Your task to perform on an android device: see sites visited before in the chrome app Image 0: 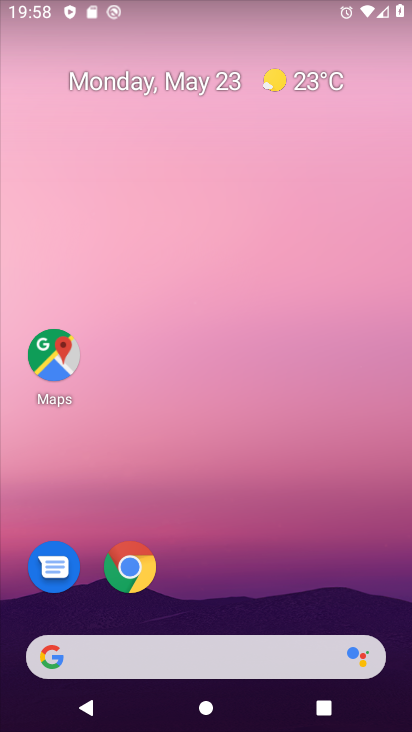
Step 0: drag from (213, 608) to (228, 325)
Your task to perform on an android device: see sites visited before in the chrome app Image 1: 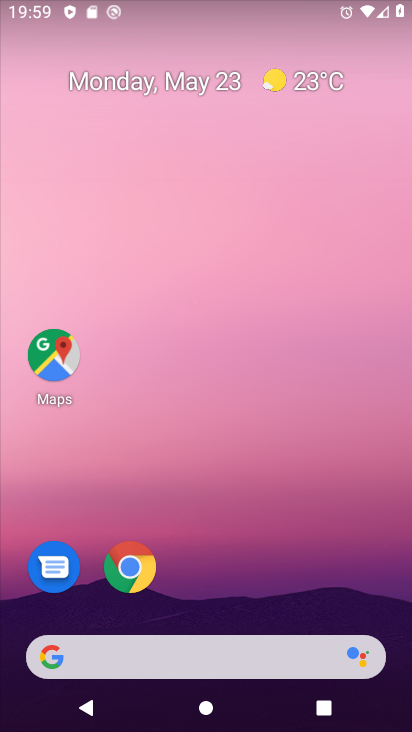
Step 1: drag from (221, 603) to (267, 270)
Your task to perform on an android device: see sites visited before in the chrome app Image 2: 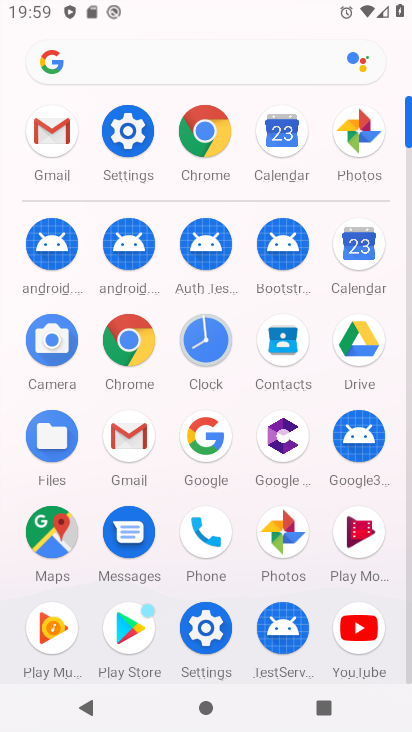
Step 2: click (200, 132)
Your task to perform on an android device: see sites visited before in the chrome app Image 3: 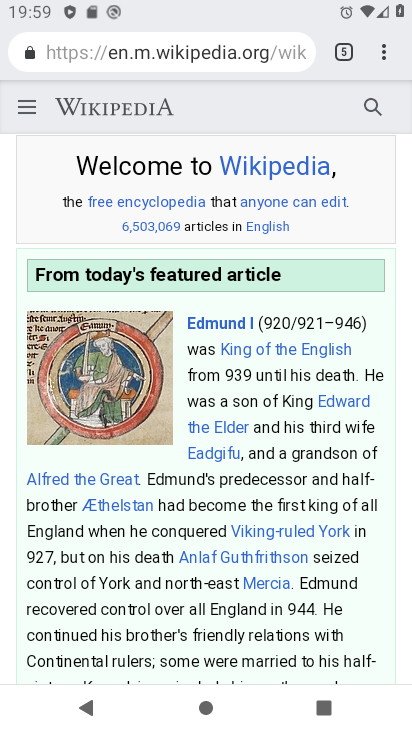
Step 3: click (376, 52)
Your task to perform on an android device: see sites visited before in the chrome app Image 4: 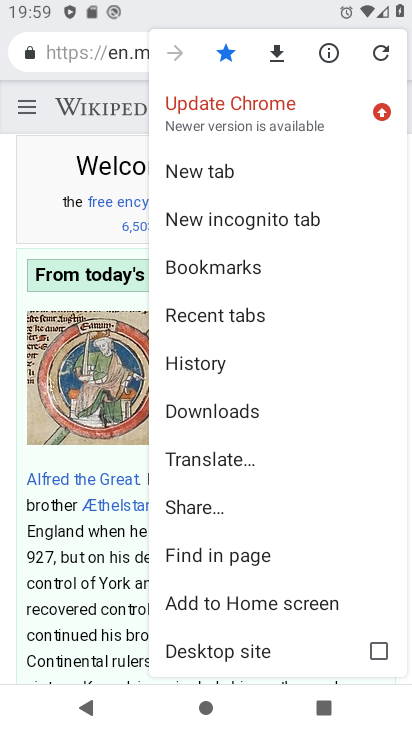
Step 4: click (221, 358)
Your task to perform on an android device: see sites visited before in the chrome app Image 5: 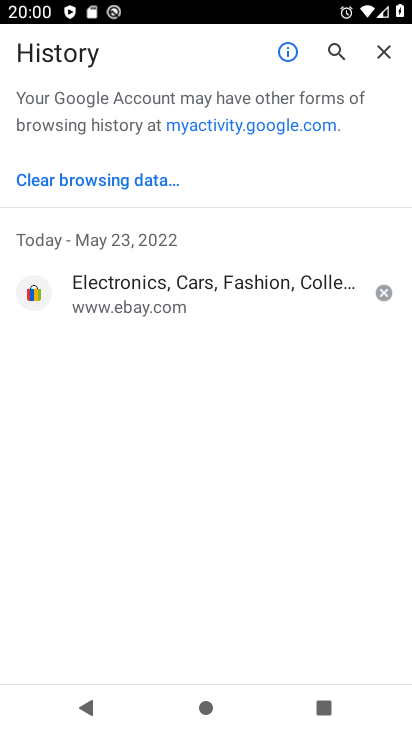
Step 5: task complete